Your task to perform on an android device: Go to display settings Image 0: 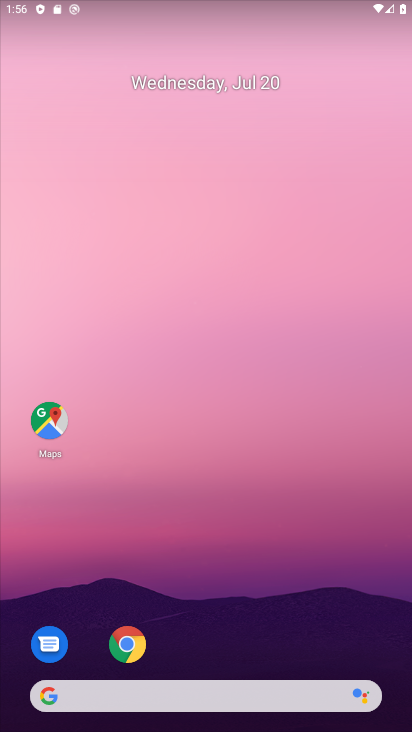
Step 0: drag from (224, 635) to (273, 46)
Your task to perform on an android device: Go to display settings Image 1: 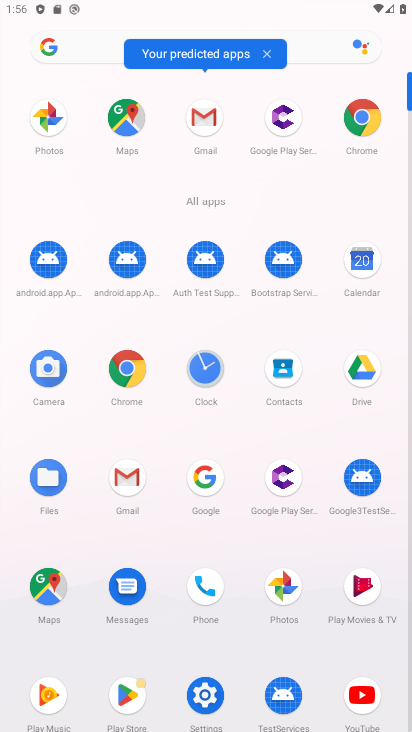
Step 1: click (220, 681)
Your task to perform on an android device: Go to display settings Image 2: 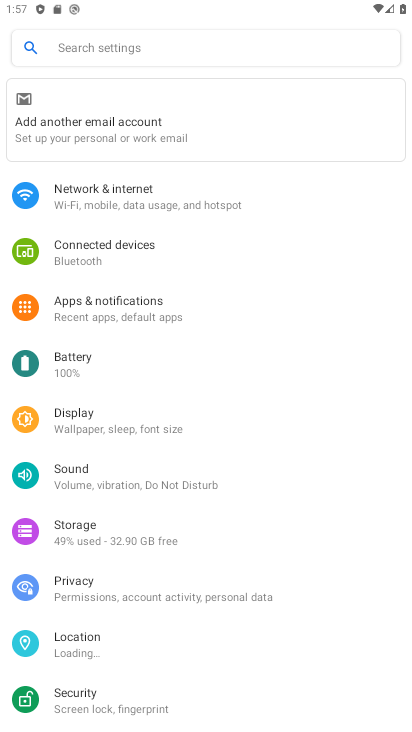
Step 2: click (80, 426)
Your task to perform on an android device: Go to display settings Image 3: 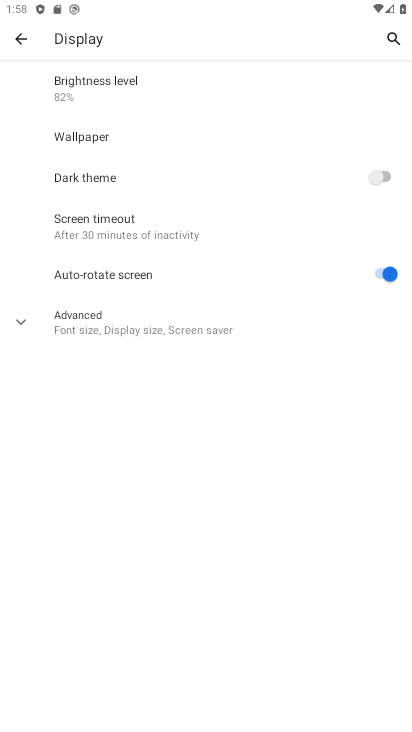
Step 3: click (77, 326)
Your task to perform on an android device: Go to display settings Image 4: 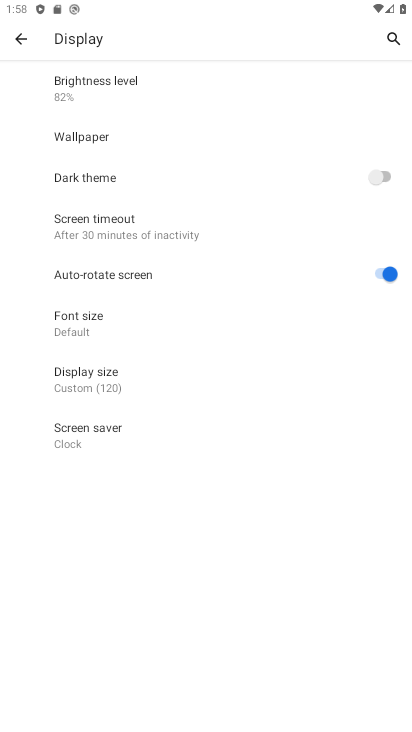
Step 4: click (85, 373)
Your task to perform on an android device: Go to display settings Image 5: 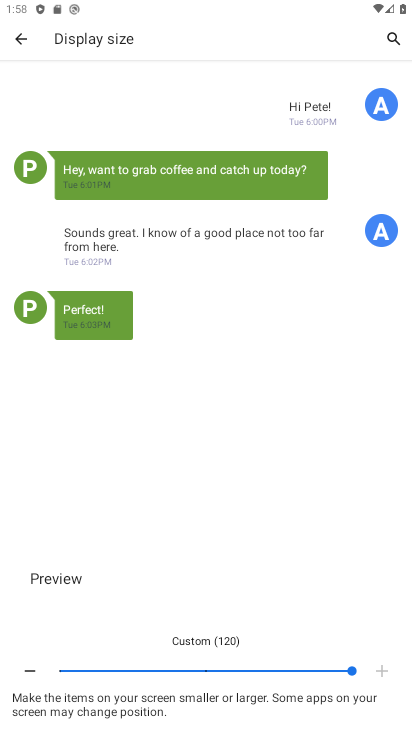
Step 5: click (208, 669)
Your task to perform on an android device: Go to display settings Image 6: 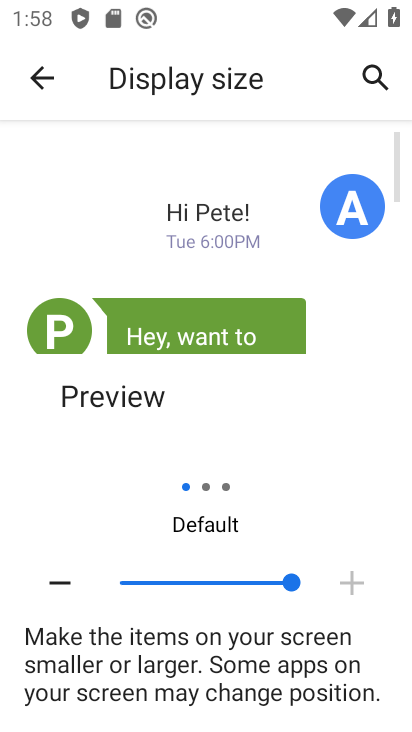
Step 6: task complete